Your task to perform on an android device: create a new album in the google photos Image 0: 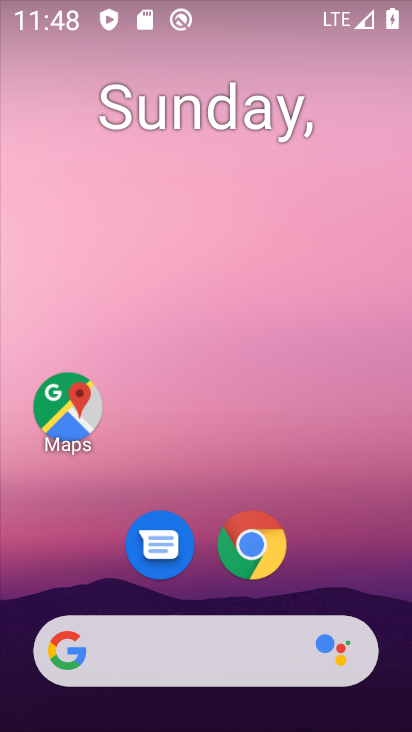
Step 0: drag from (391, 581) to (397, 165)
Your task to perform on an android device: create a new album in the google photos Image 1: 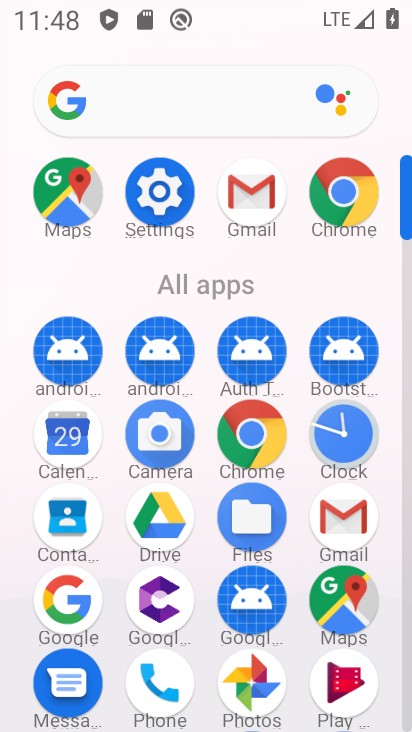
Step 1: click (272, 683)
Your task to perform on an android device: create a new album in the google photos Image 2: 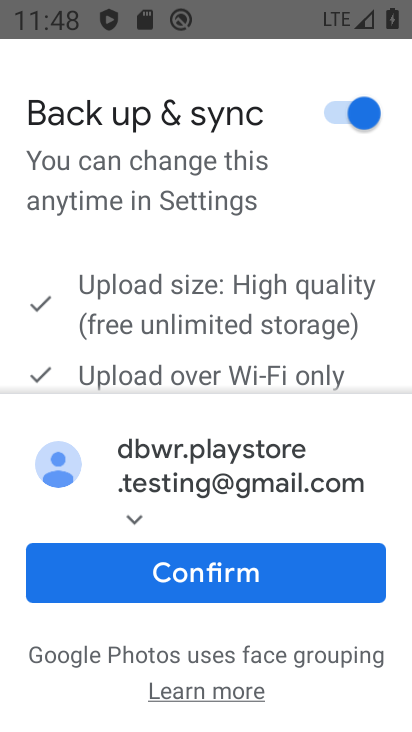
Step 2: click (354, 580)
Your task to perform on an android device: create a new album in the google photos Image 3: 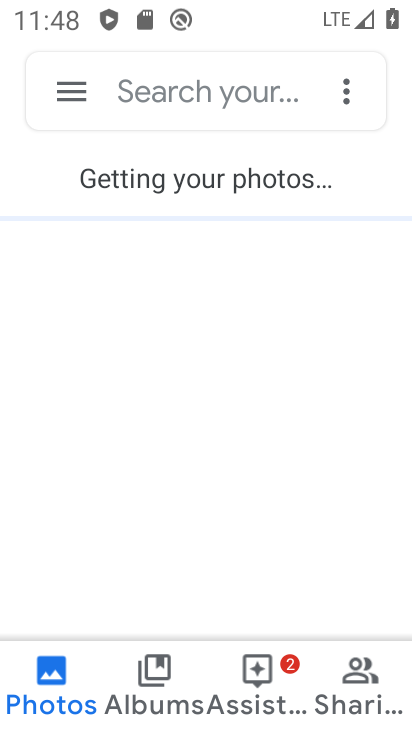
Step 3: click (348, 97)
Your task to perform on an android device: create a new album in the google photos Image 4: 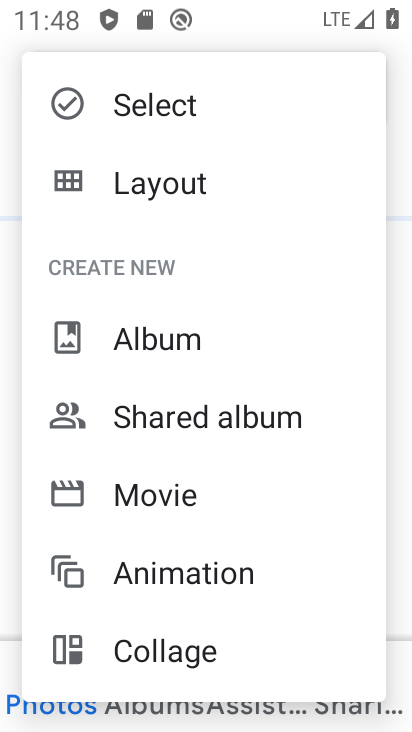
Step 4: click (205, 338)
Your task to perform on an android device: create a new album in the google photos Image 5: 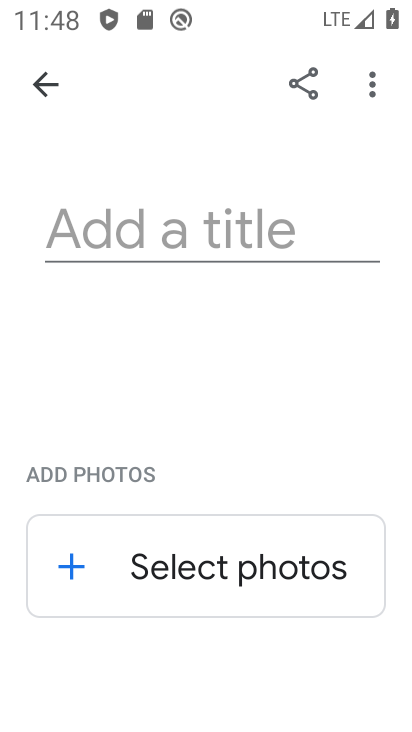
Step 5: click (290, 241)
Your task to perform on an android device: create a new album in the google photos Image 6: 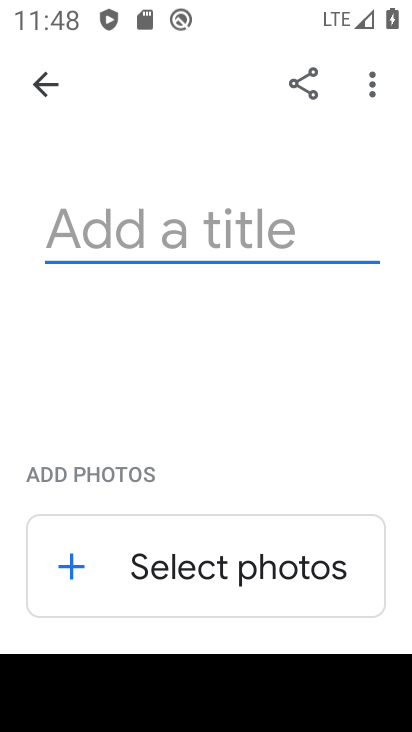
Step 6: type "fav"
Your task to perform on an android device: create a new album in the google photos Image 7: 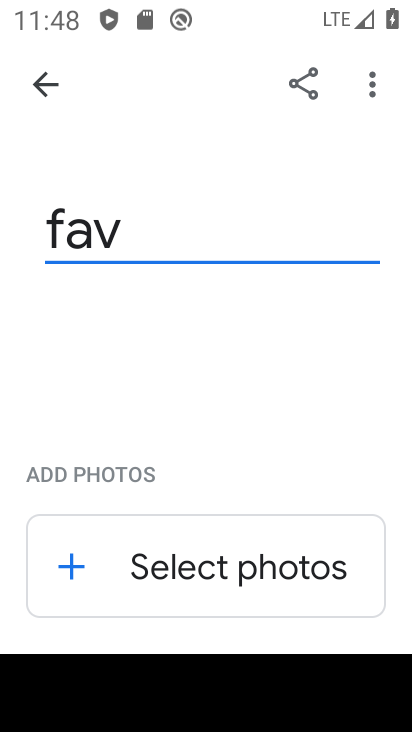
Step 7: click (191, 579)
Your task to perform on an android device: create a new album in the google photos Image 8: 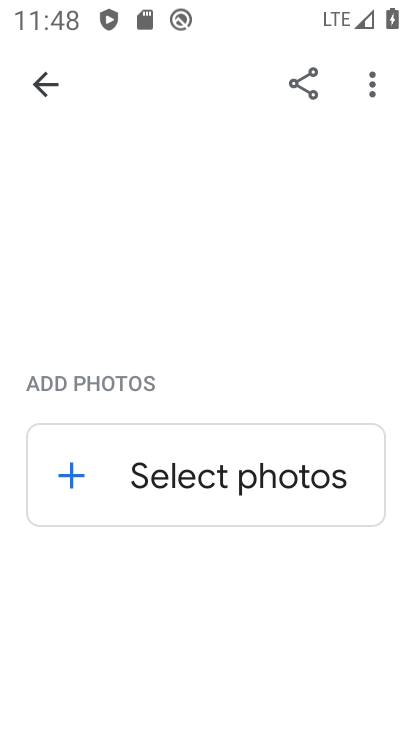
Step 8: click (85, 462)
Your task to perform on an android device: create a new album in the google photos Image 9: 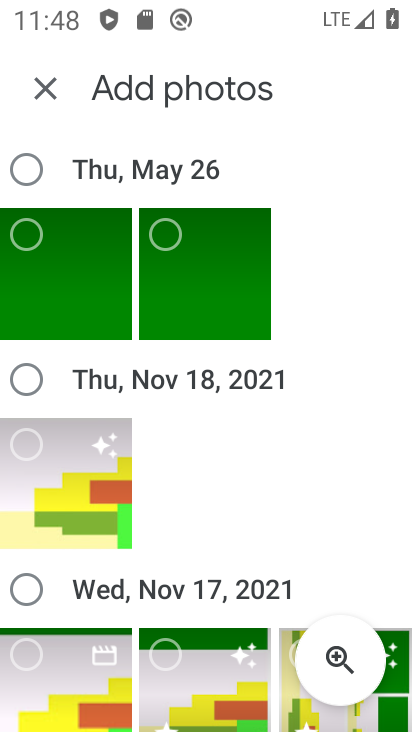
Step 9: click (58, 305)
Your task to perform on an android device: create a new album in the google photos Image 10: 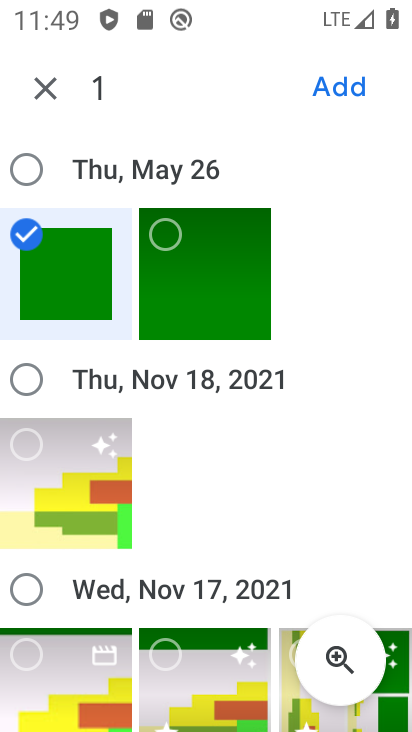
Step 10: click (200, 280)
Your task to perform on an android device: create a new album in the google photos Image 11: 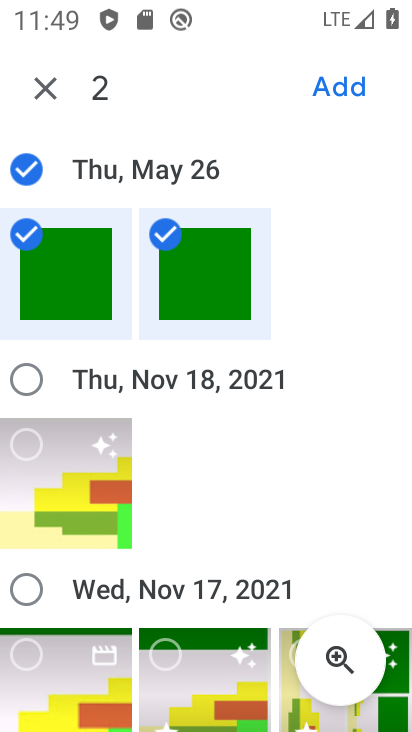
Step 11: click (343, 92)
Your task to perform on an android device: create a new album in the google photos Image 12: 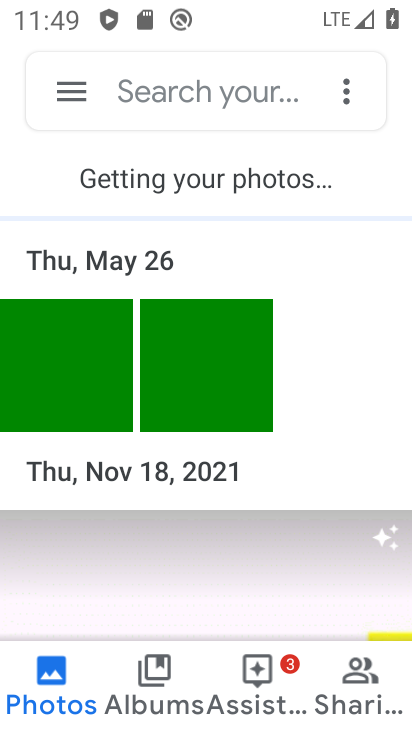
Step 12: task complete